Your task to perform on an android device: open a new tab in the chrome app Image 0: 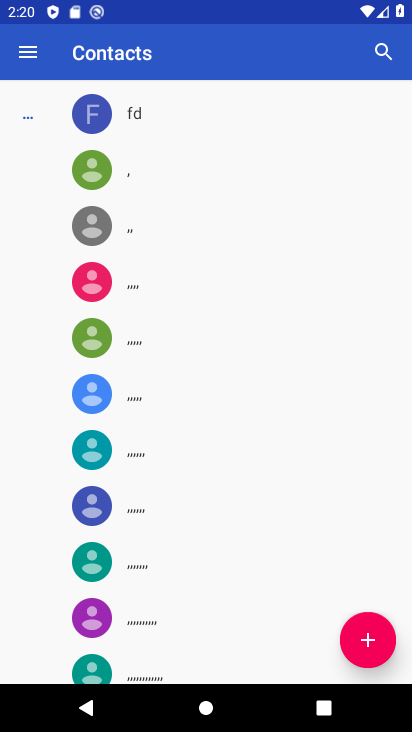
Step 0: press home button
Your task to perform on an android device: open a new tab in the chrome app Image 1: 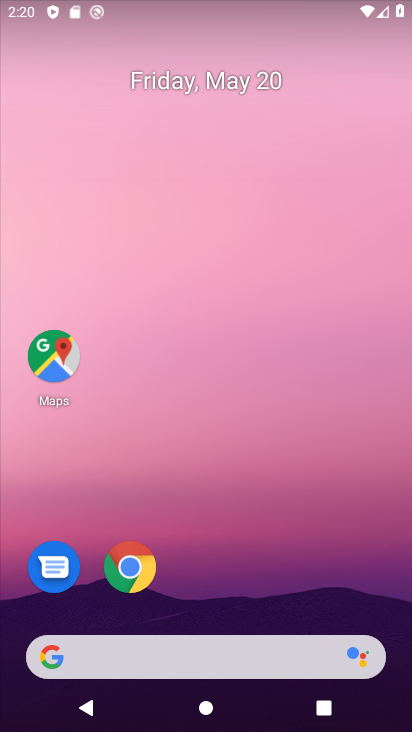
Step 1: click (137, 581)
Your task to perform on an android device: open a new tab in the chrome app Image 2: 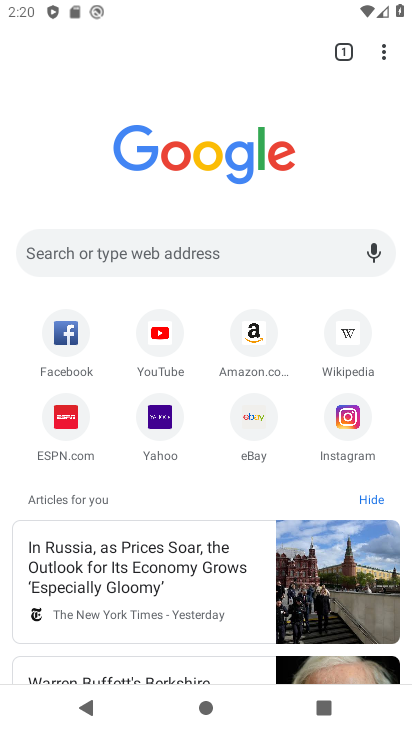
Step 2: click (384, 48)
Your task to perform on an android device: open a new tab in the chrome app Image 3: 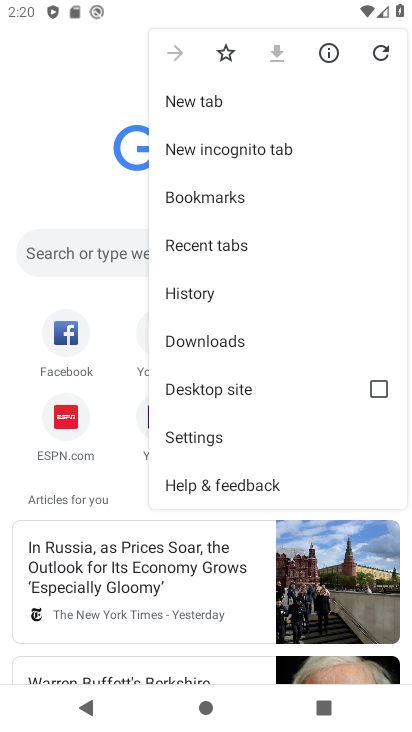
Step 3: click (234, 107)
Your task to perform on an android device: open a new tab in the chrome app Image 4: 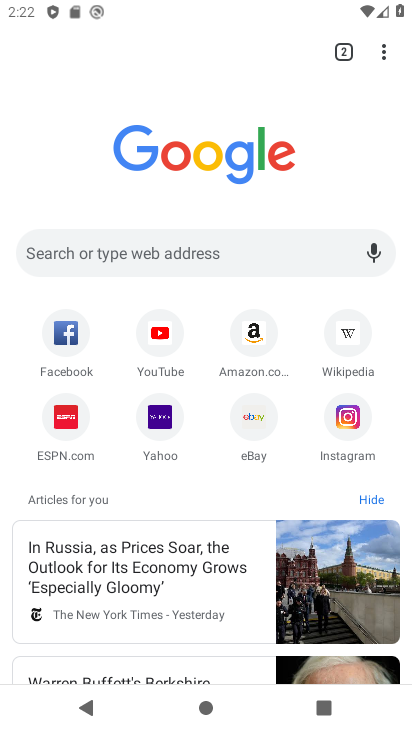
Step 4: click (381, 54)
Your task to perform on an android device: open a new tab in the chrome app Image 5: 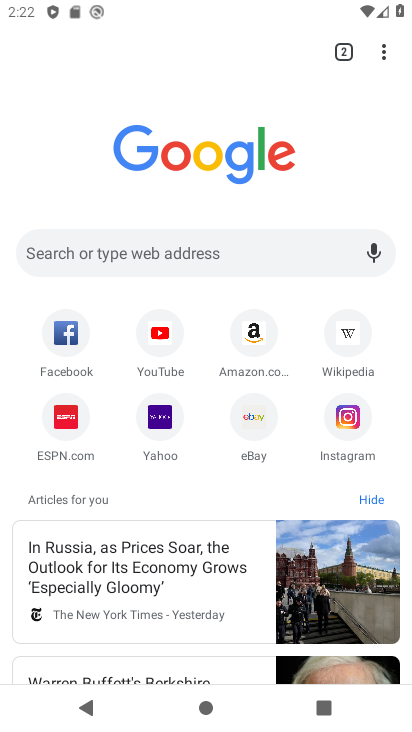
Step 5: task complete